Your task to perform on an android device: What's on my calendar today? Image 0: 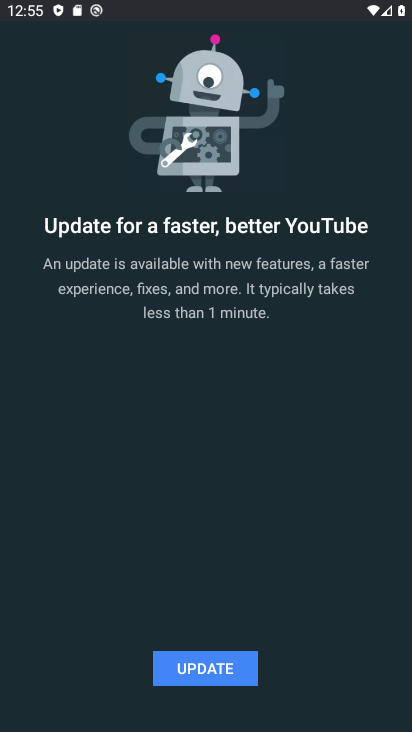
Step 0: press home button
Your task to perform on an android device: What's on my calendar today? Image 1: 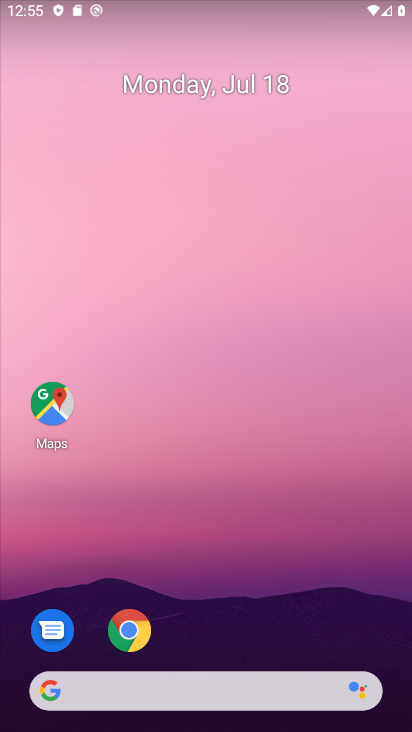
Step 1: drag from (233, 617) to (269, 5)
Your task to perform on an android device: What's on my calendar today? Image 2: 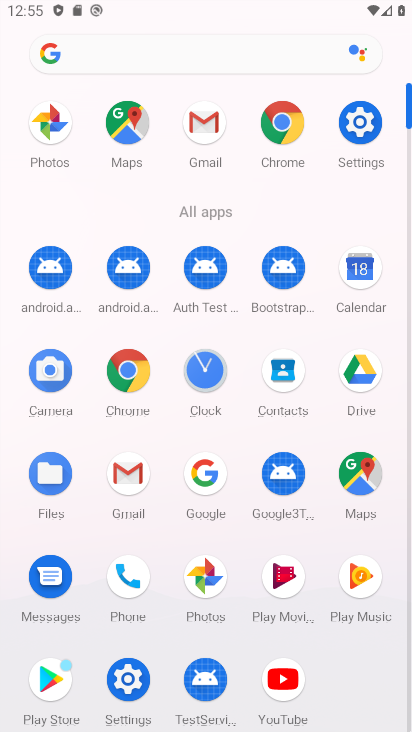
Step 2: click (366, 268)
Your task to perform on an android device: What's on my calendar today? Image 3: 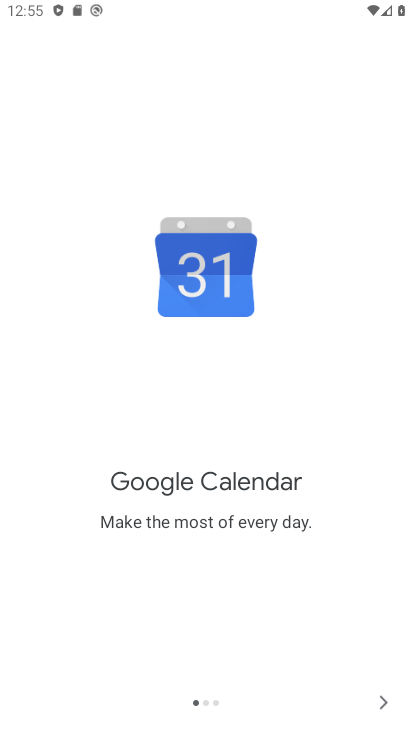
Step 3: click (374, 697)
Your task to perform on an android device: What's on my calendar today? Image 4: 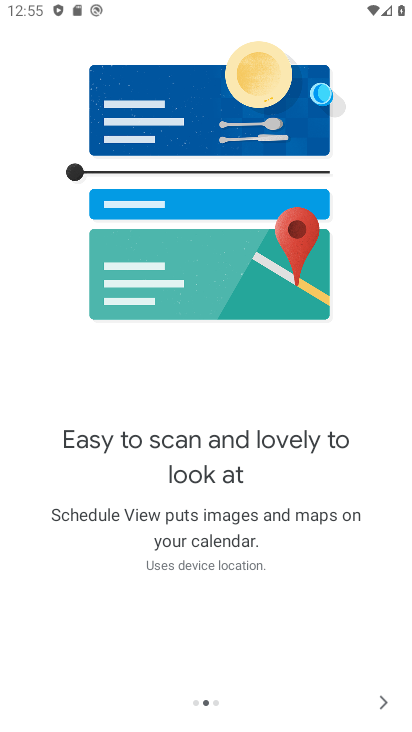
Step 4: click (381, 700)
Your task to perform on an android device: What's on my calendar today? Image 5: 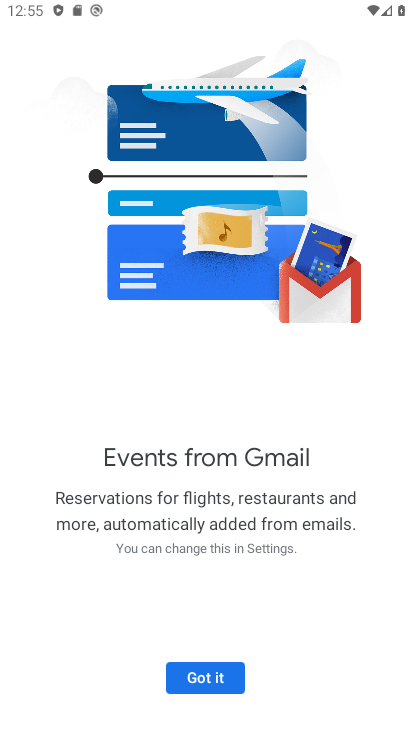
Step 5: click (235, 681)
Your task to perform on an android device: What's on my calendar today? Image 6: 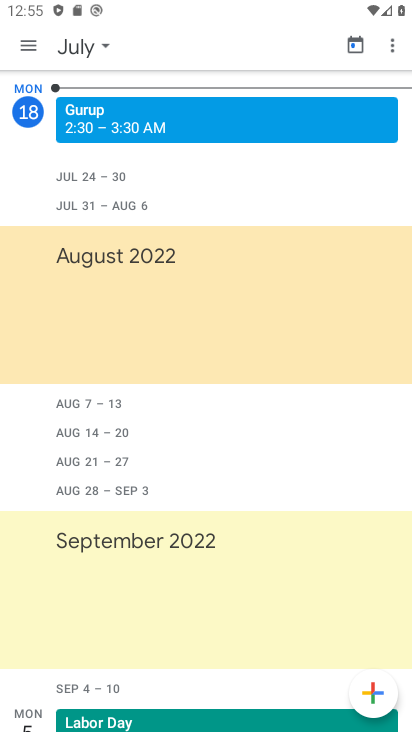
Step 6: click (261, 119)
Your task to perform on an android device: What's on my calendar today? Image 7: 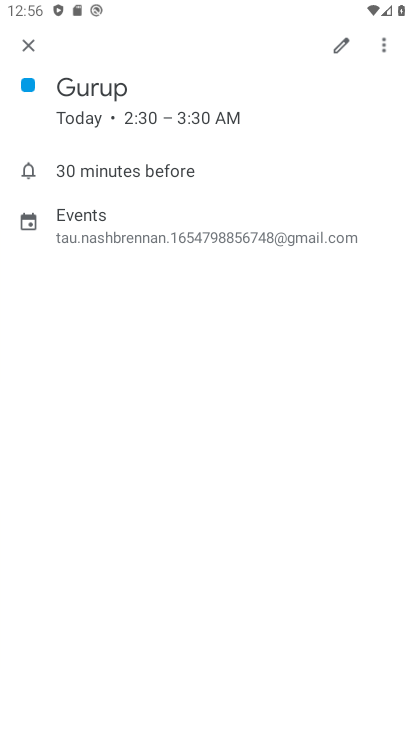
Step 7: task complete